Your task to perform on an android device: Search for shimano brake pads on Walmart Image 0: 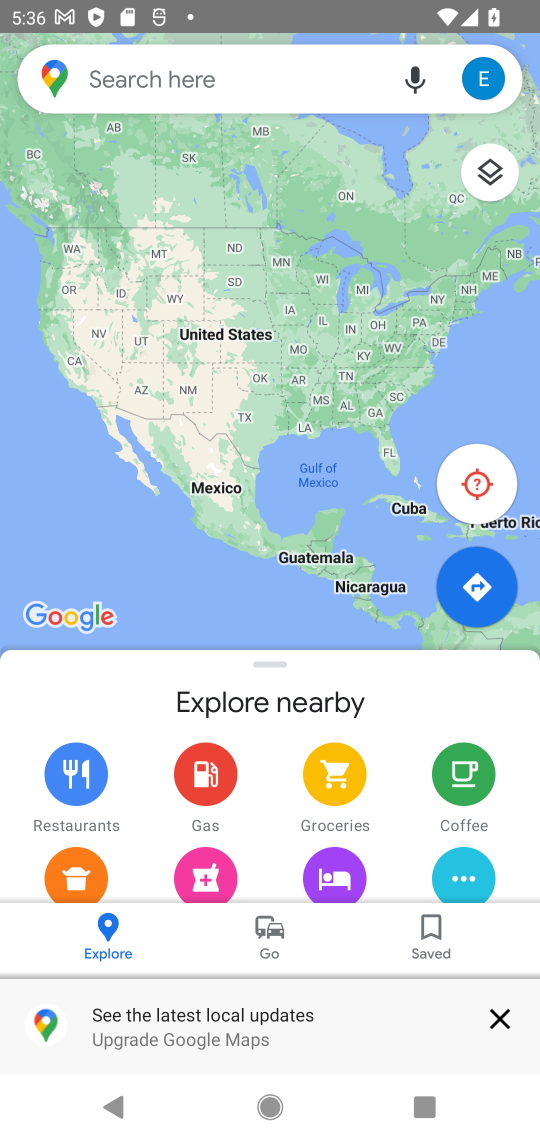
Step 0: press home button
Your task to perform on an android device: Search for shimano brake pads on Walmart Image 1: 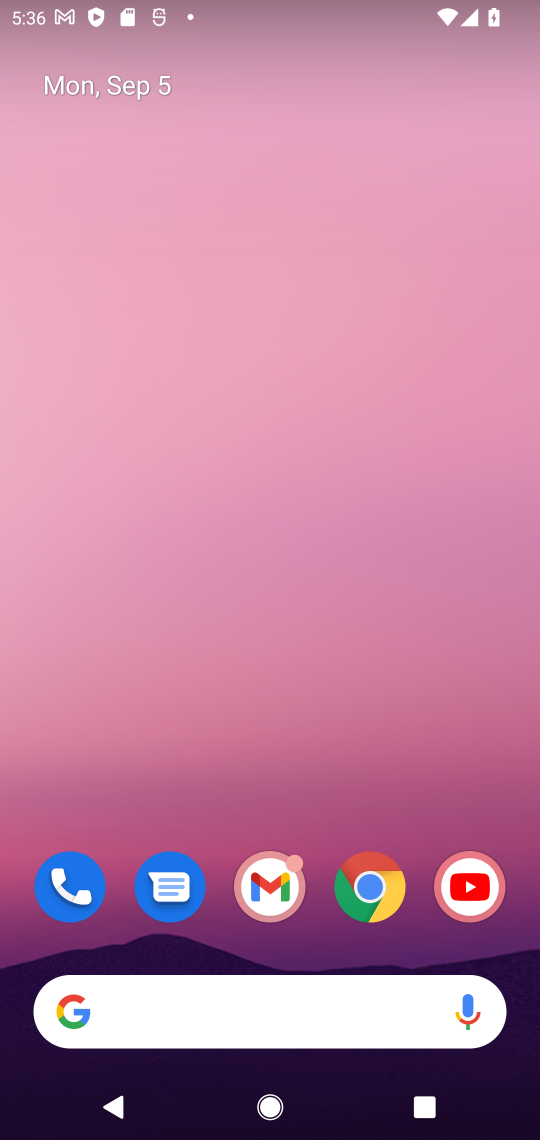
Step 1: drag from (336, 317) to (373, 21)
Your task to perform on an android device: Search for shimano brake pads on Walmart Image 2: 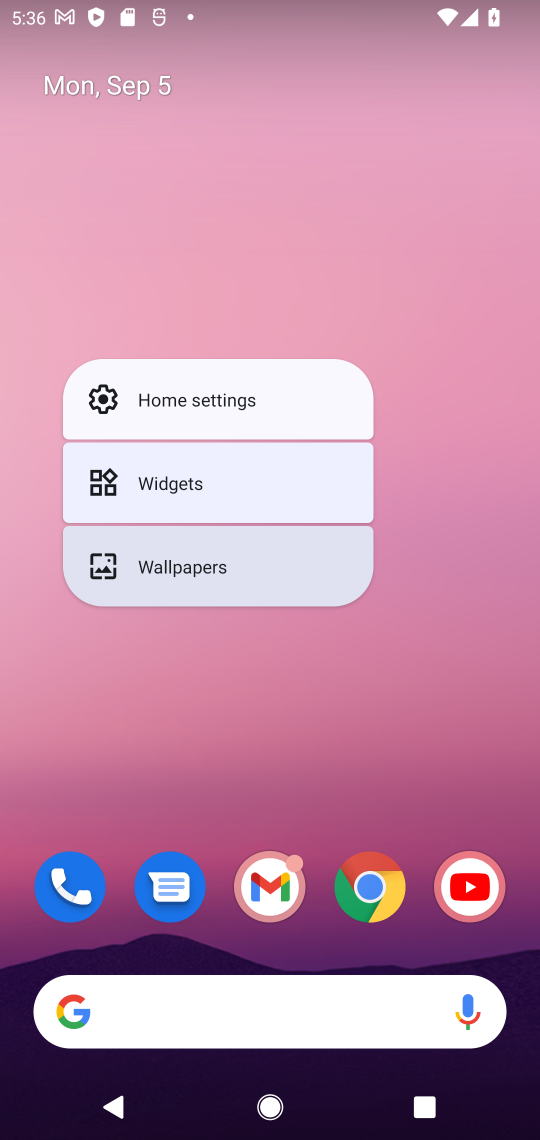
Step 2: click (359, 807)
Your task to perform on an android device: Search for shimano brake pads on Walmart Image 3: 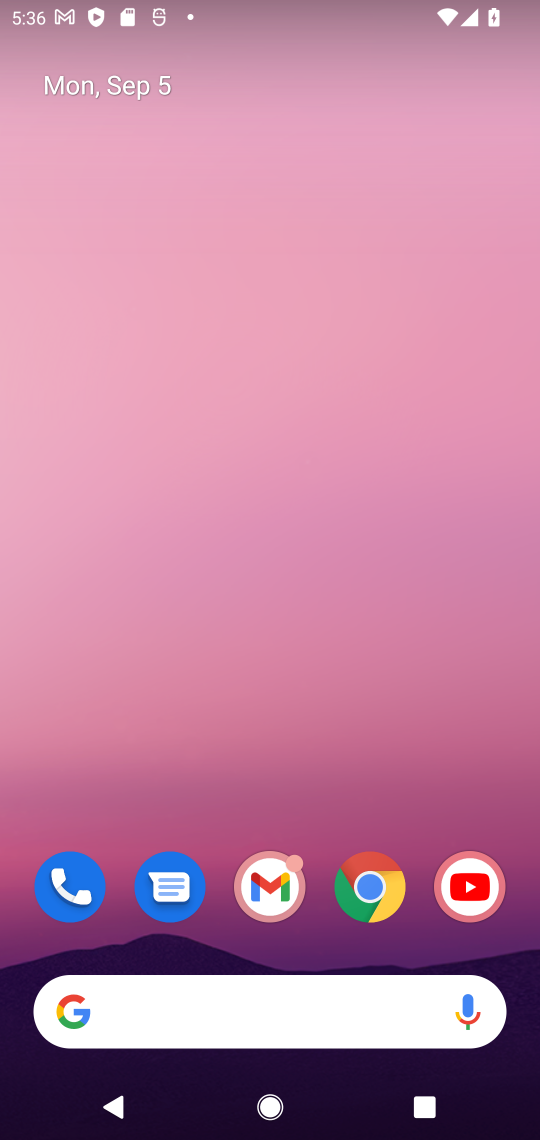
Step 3: drag from (324, 828) to (360, 44)
Your task to perform on an android device: Search for shimano brake pads on Walmart Image 4: 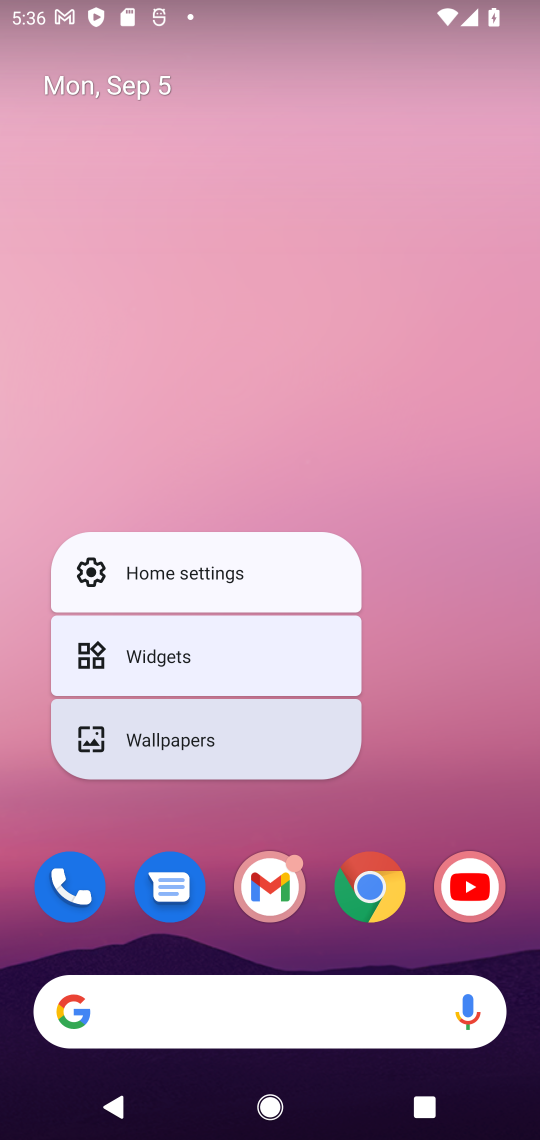
Step 4: click (370, 549)
Your task to perform on an android device: Search for shimano brake pads on Walmart Image 5: 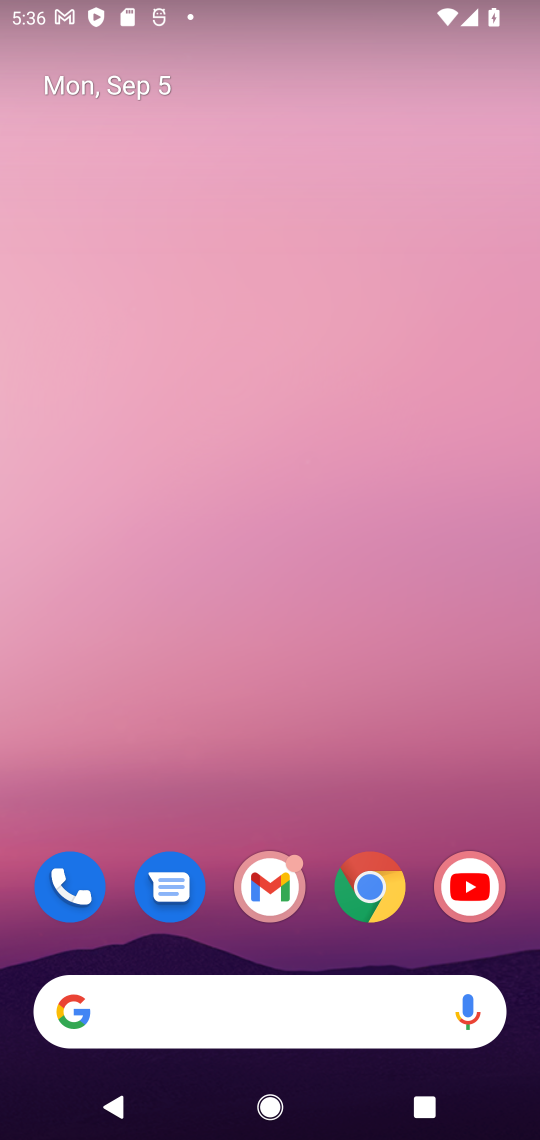
Step 5: drag from (307, 840) to (307, 35)
Your task to perform on an android device: Search for shimano brake pads on Walmart Image 6: 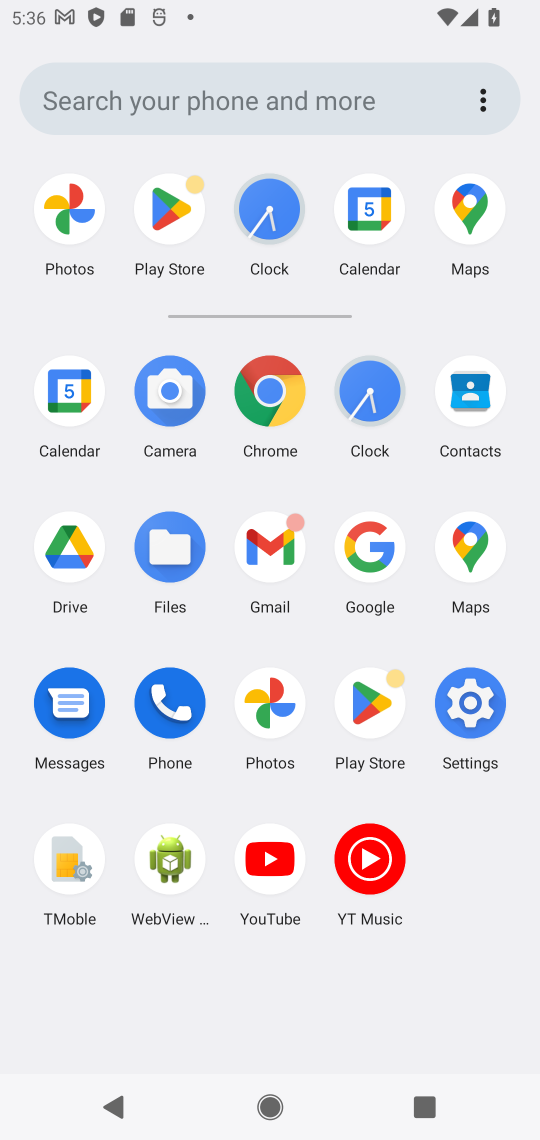
Step 6: click (260, 401)
Your task to perform on an android device: Search for shimano brake pads on Walmart Image 7: 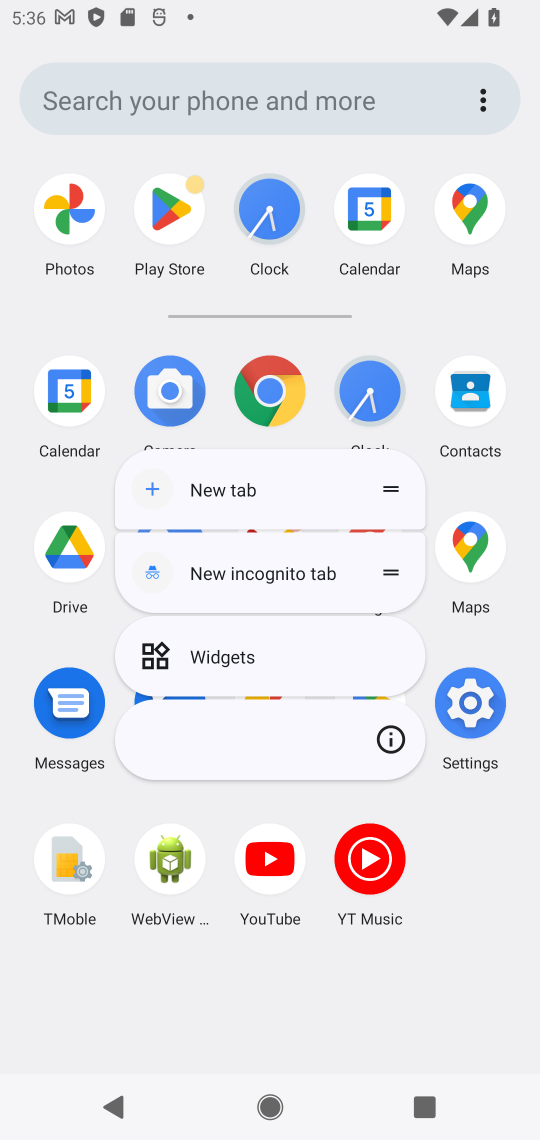
Step 7: click (250, 396)
Your task to perform on an android device: Search for shimano brake pads on Walmart Image 8: 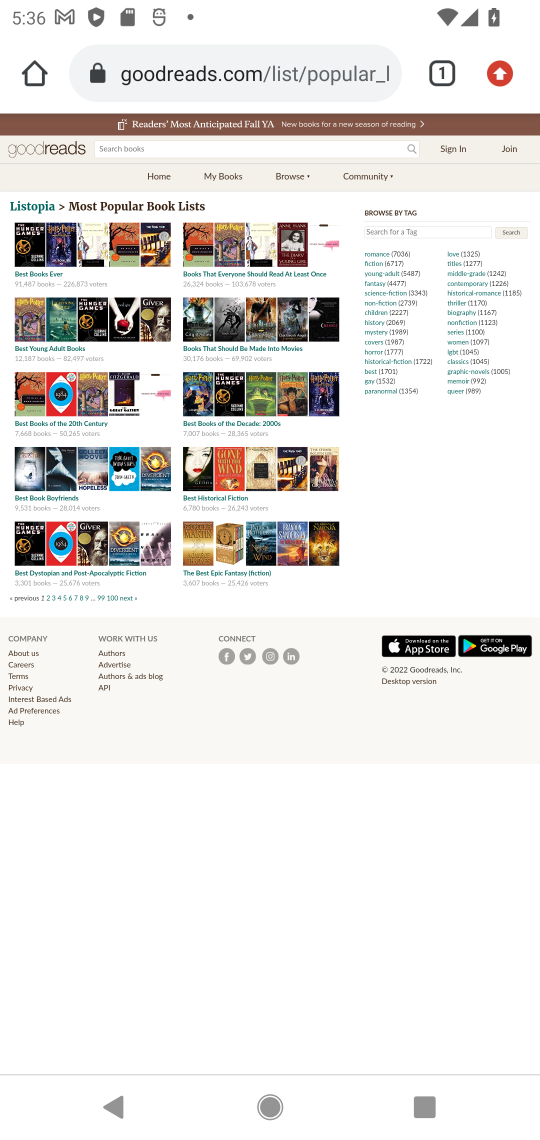
Step 8: click (245, 71)
Your task to perform on an android device: Search for shimano brake pads on Walmart Image 9: 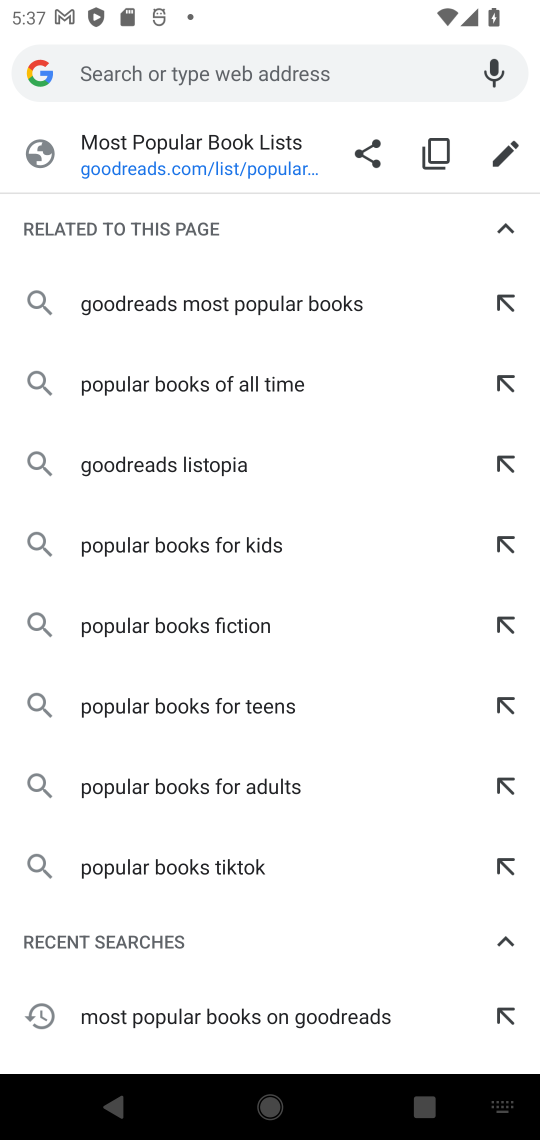
Step 9: type "shimano brake pads on Walmart"
Your task to perform on an android device: Search for shimano brake pads on Walmart Image 10: 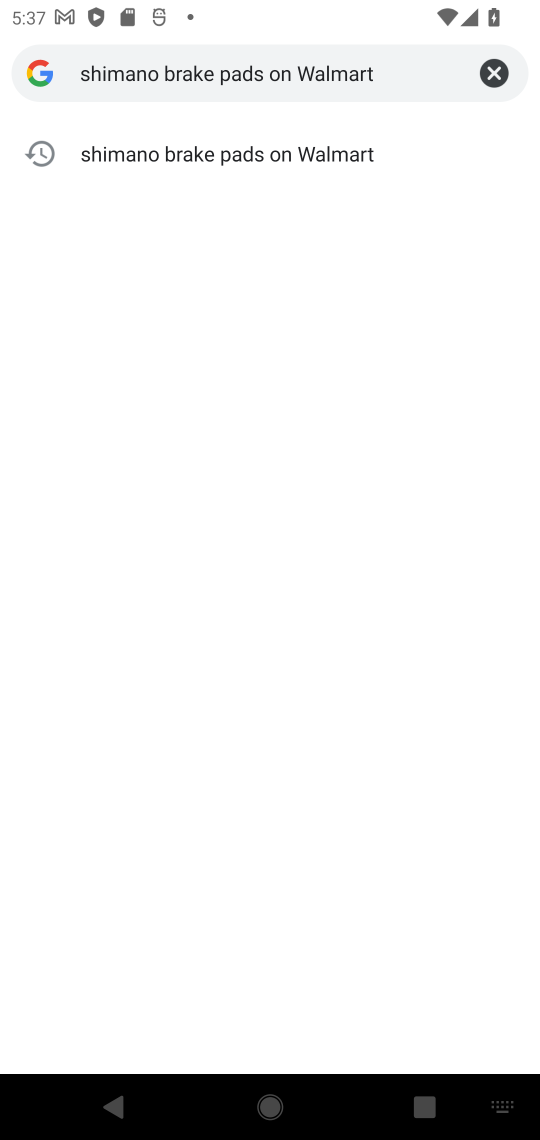
Step 10: press enter
Your task to perform on an android device: Search for shimano brake pads on Walmart Image 11: 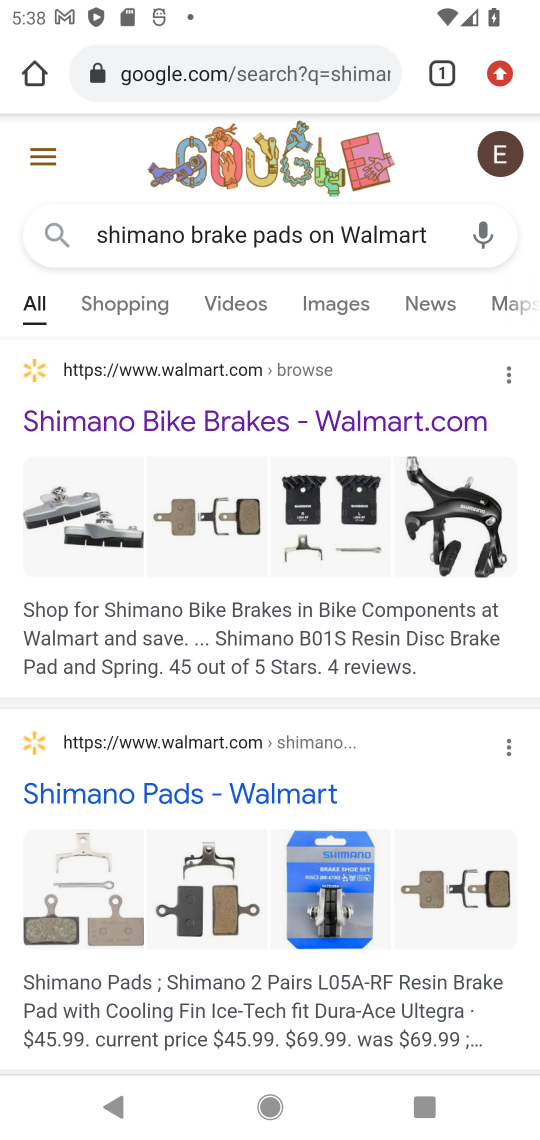
Step 11: click (301, 414)
Your task to perform on an android device: Search for shimano brake pads on Walmart Image 12: 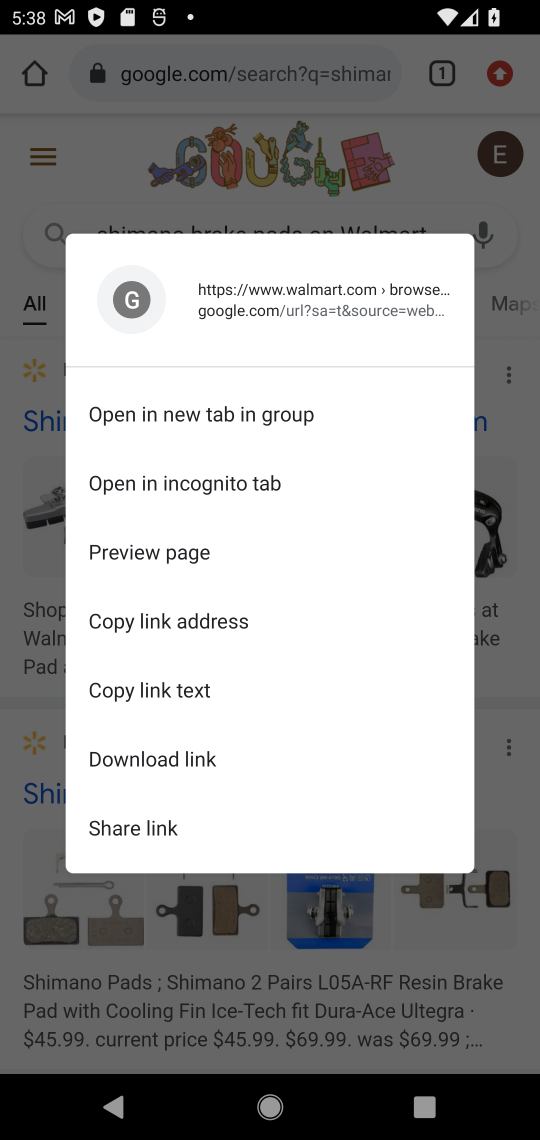
Step 12: click (301, 168)
Your task to perform on an android device: Search for shimano brake pads on Walmart Image 13: 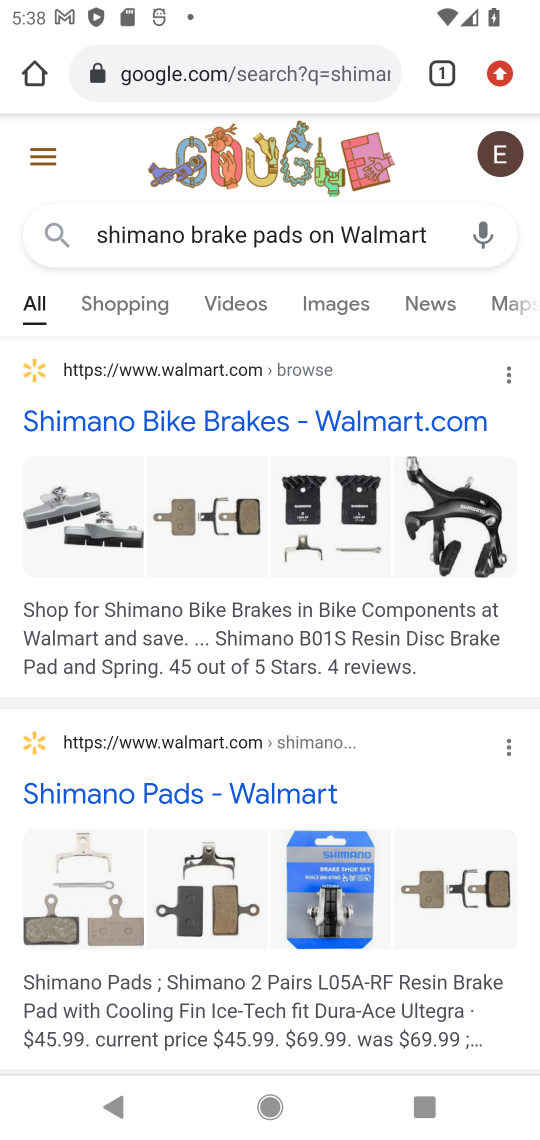
Step 13: click (335, 414)
Your task to perform on an android device: Search for shimano brake pads on Walmart Image 14: 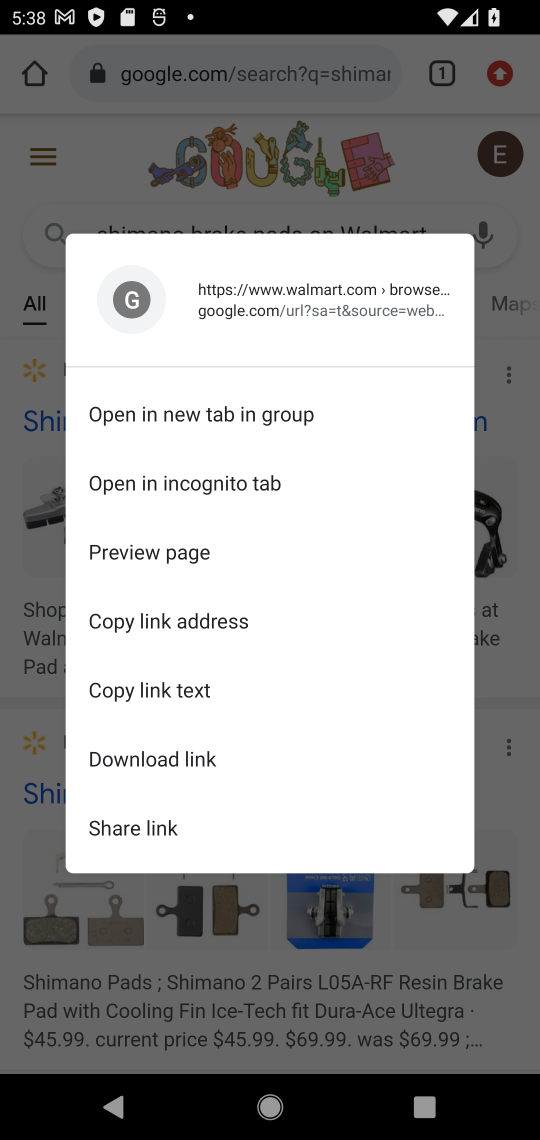
Step 14: click (511, 427)
Your task to perform on an android device: Search for shimano brake pads on Walmart Image 15: 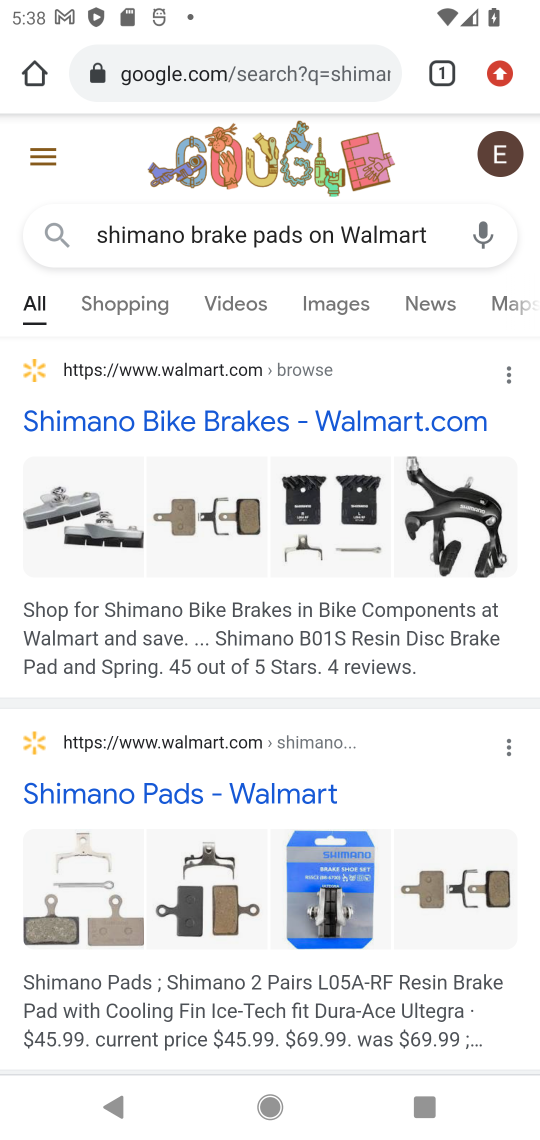
Step 15: click (386, 412)
Your task to perform on an android device: Search for shimano brake pads on Walmart Image 16: 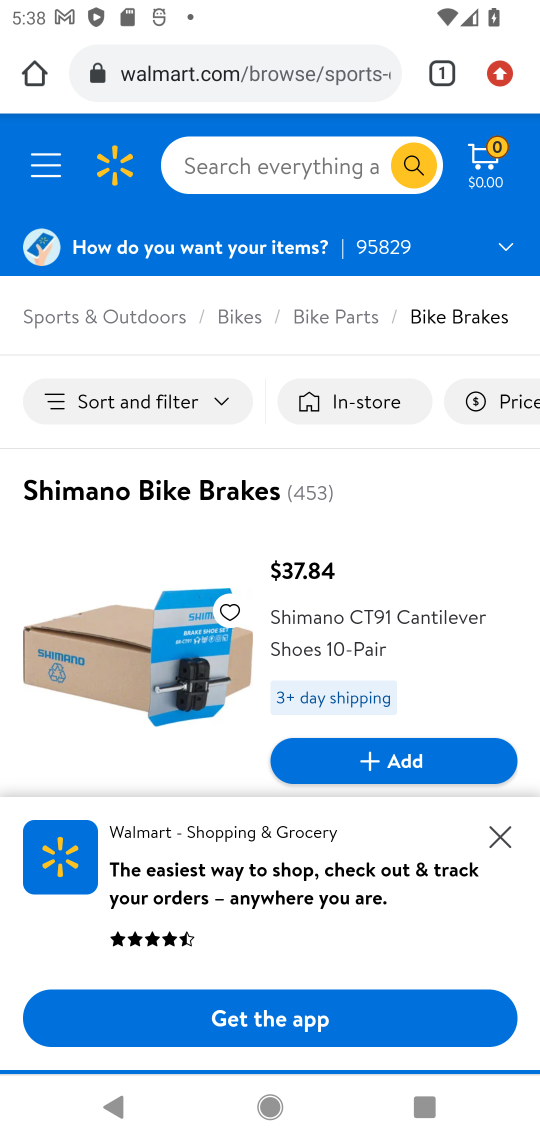
Step 16: task complete